Your task to perform on an android device: toggle airplane mode Image 0: 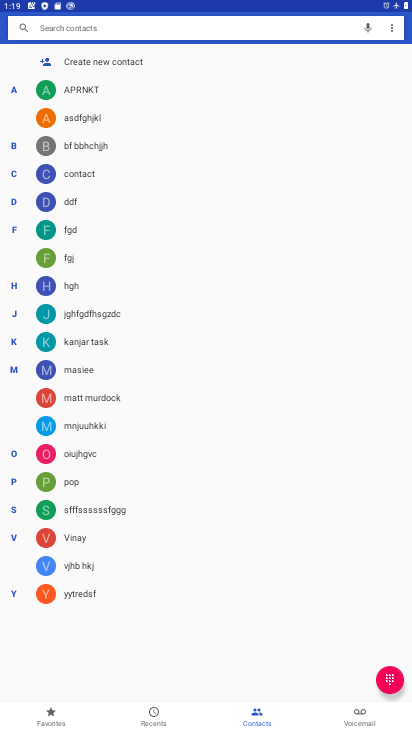
Step 0: press home button
Your task to perform on an android device: toggle airplane mode Image 1: 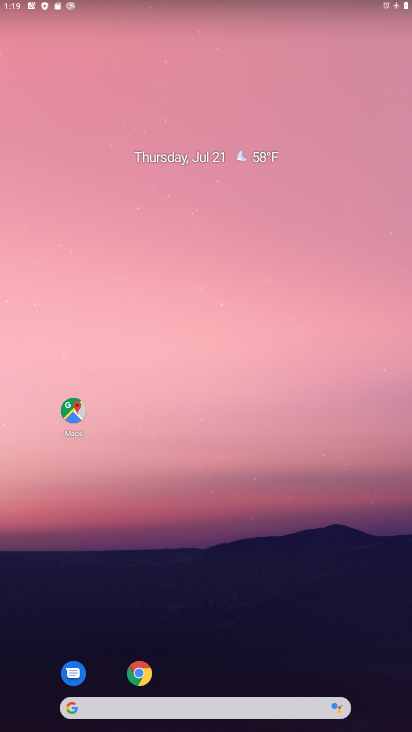
Step 1: drag from (212, 591) to (253, 186)
Your task to perform on an android device: toggle airplane mode Image 2: 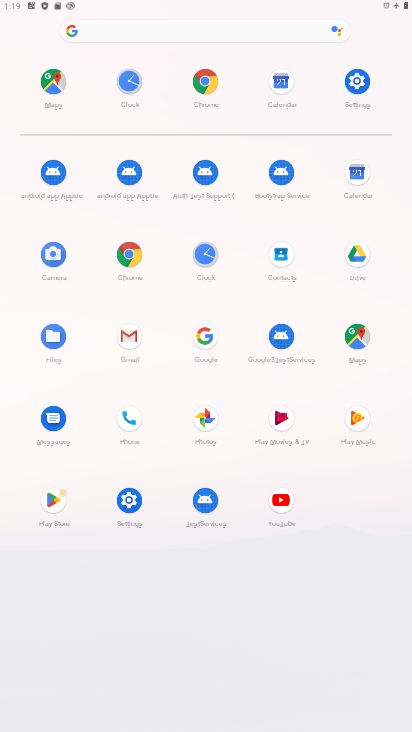
Step 2: click (350, 81)
Your task to perform on an android device: toggle airplane mode Image 3: 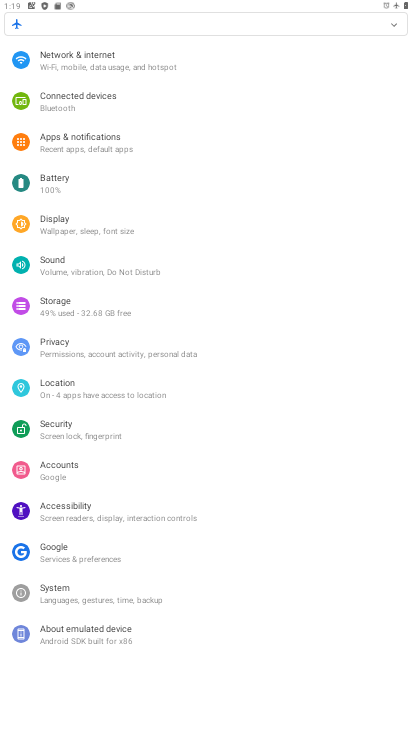
Step 3: click (104, 69)
Your task to perform on an android device: toggle airplane mode Image 4: 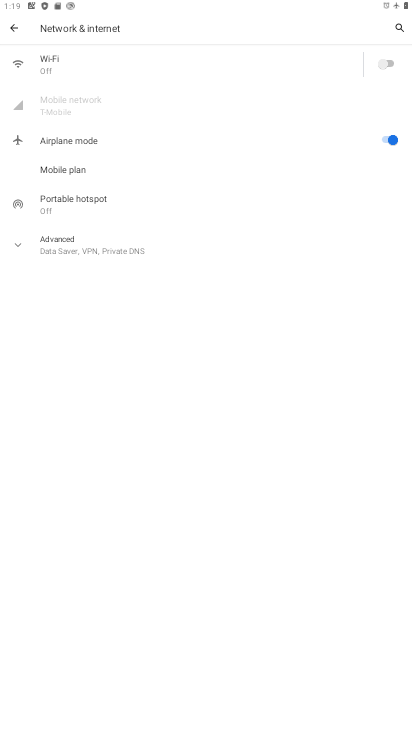
Step 4: click (382, 130)
Your task to perform on an android device: toggle airplane mode Image 5: 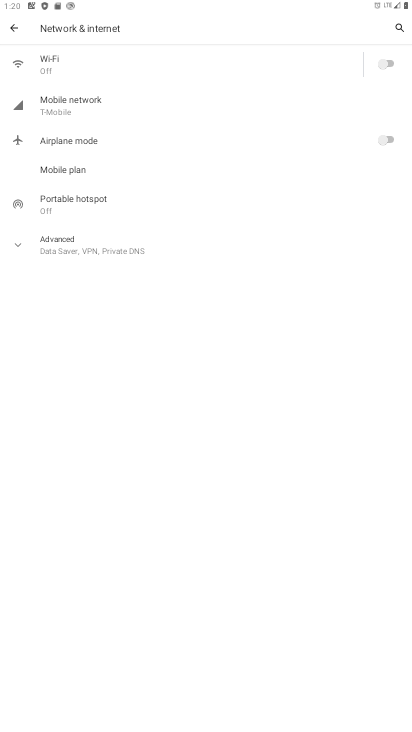
Step 5: task complete